Your task to perform on an android device: move an email to a new category in the gmail app Image 0: 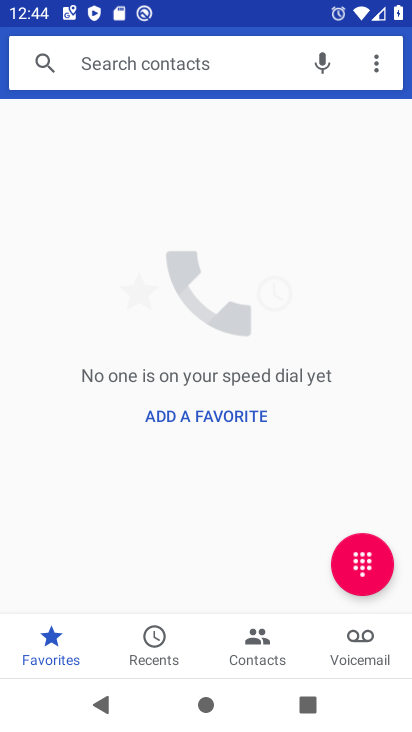
Step 0: press home button
Your task to perform on an android device: move an email to a new category in the gmail app Image 1: 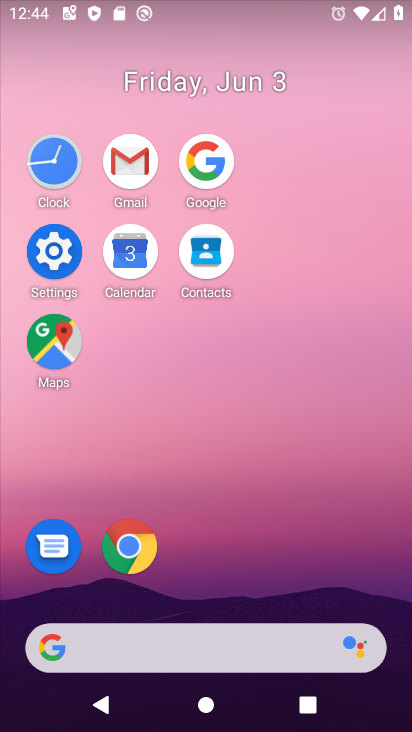
Step 1: click (151, 166)
Your task to perform on an android device: move an email to a new category in the gmail app Image 2: 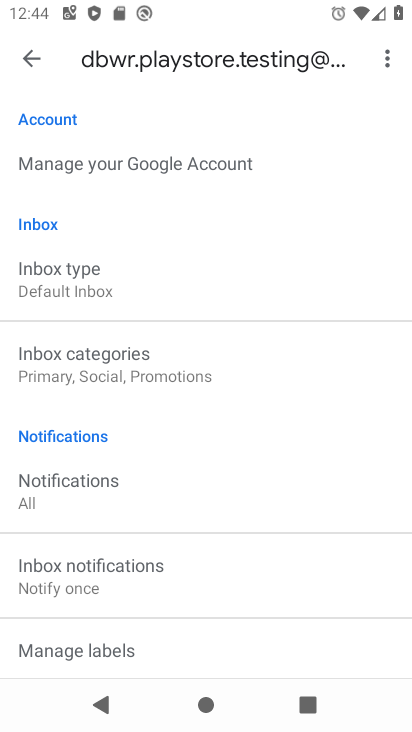
Step 2: click (34, 67)
Your task to perform on an android device: move an email to a new category in the gmail app Image 3: 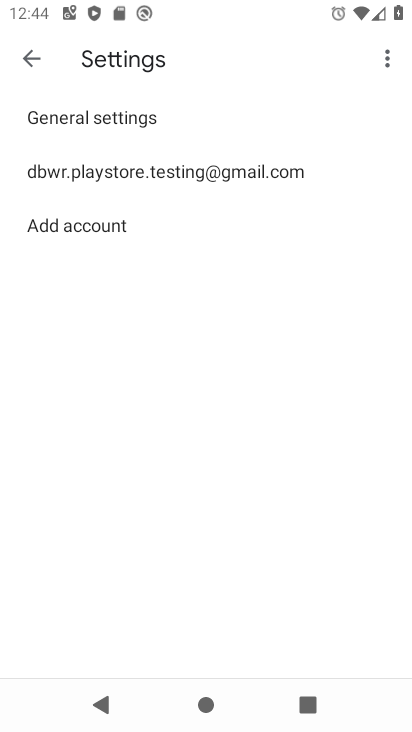
Step 3: click (34, 67)
Your task to perform on an android device: move an email to a new category in the gmail app Image 4: 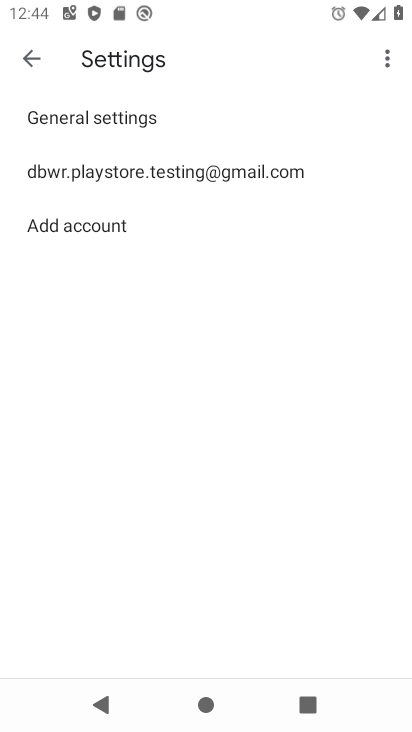
Step 4: click (32, 63)
Your task to perform on an android device: move an email to a new category in the gmail app Image 5: 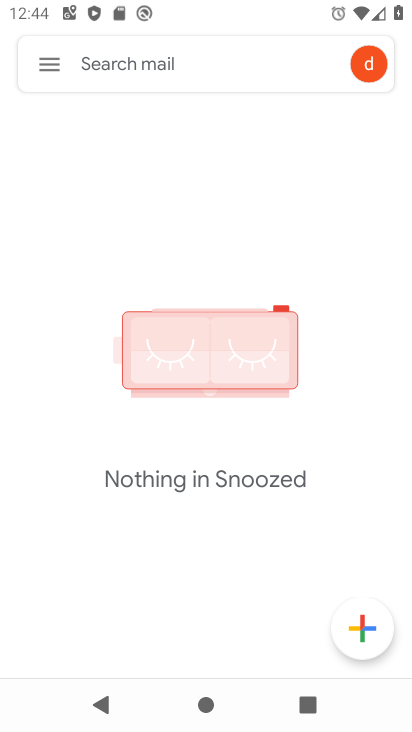
Step 5: click (53, 65)
Your task to perform on an android device: move an email to a new category in the gmail app Image 6: 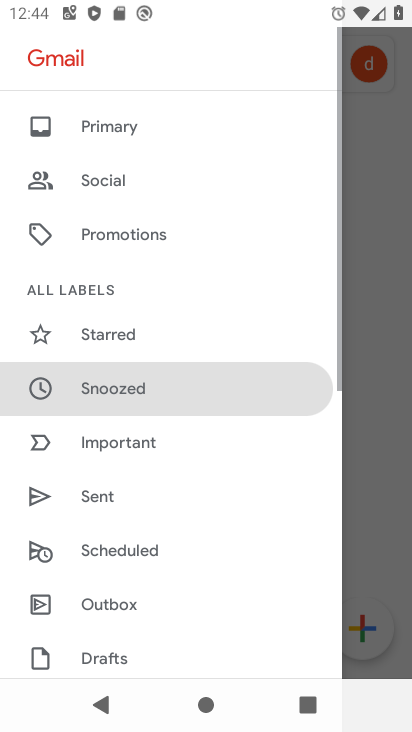
Step 6: drag from (151, 616) to (205, 209)
Your task to perform on an android device: move an email to a new category in the gmail app Image 7: 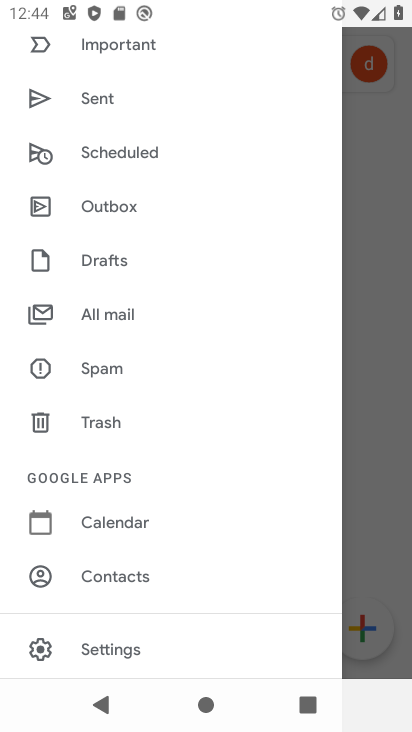
Step 7: drag from (228, 518) to (196, 126)
Your task to perform on an android device: move an email to a new category in the gmail app Image 8: 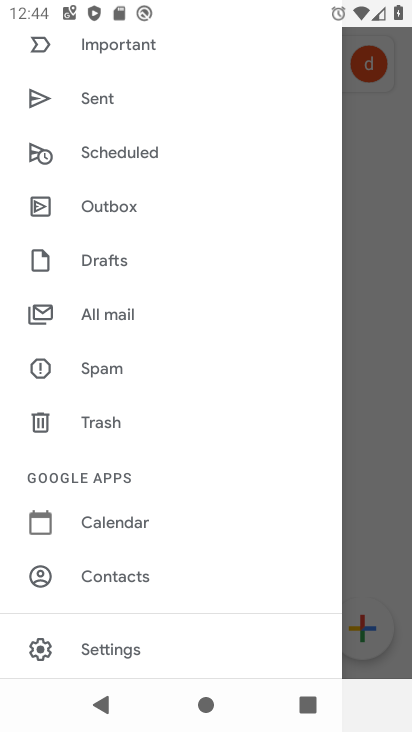
Step 8: drag from (206, 609) to (279, 284)
Your task to perform on an android device: move an email to a new category in the gmail app Image 9: 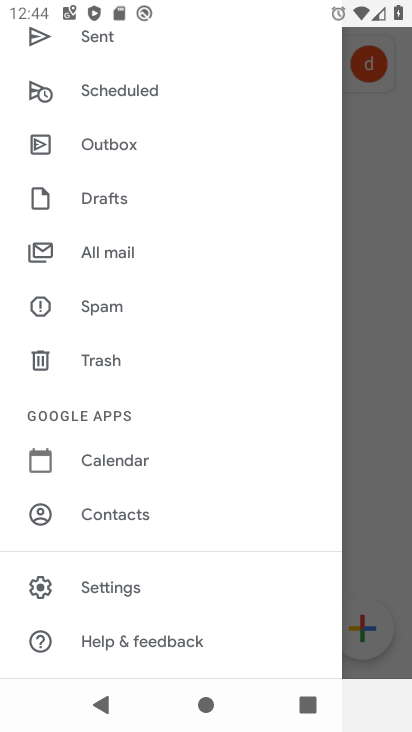
Step 9: click (185, 264)
Your task to perform on an android device: move an email to a new category in the gmail app Image 10: 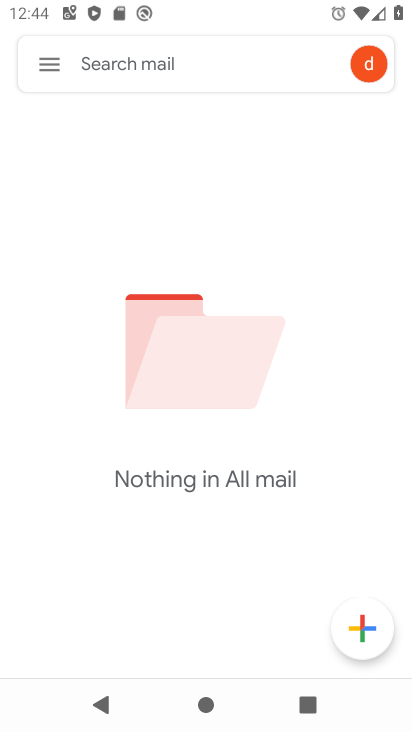
Step 10: task complete